Your task to perform on an android device: turn pop-ups on in chrome Image 0: 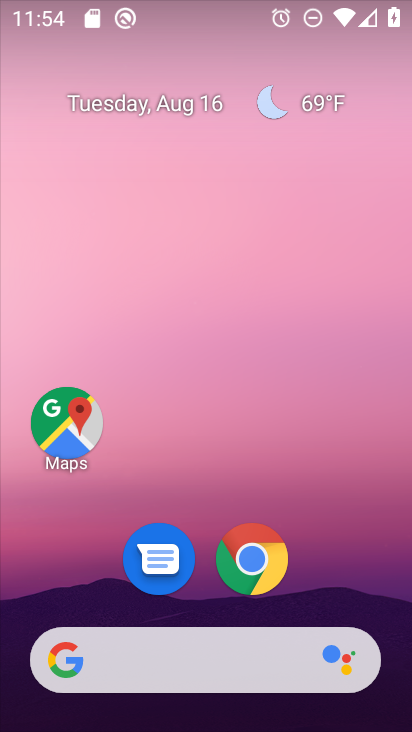
Step 0: press home button
Your task to perform on an android device: turn pop-ups on in chrome Image 1: 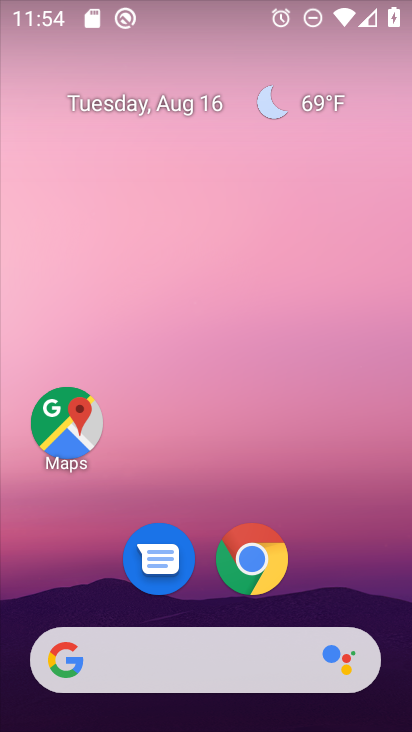
Step 1: click (254, 557)
Your task to perform on an android device: turn pop-ups on in chrome Image 2: 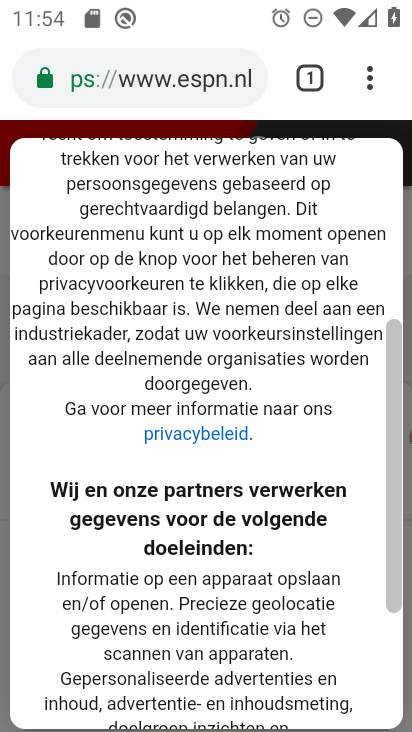
Step 2: click (388, 81)
Your task to perform on an android device: turn pop-ups on in chrome Image 3: 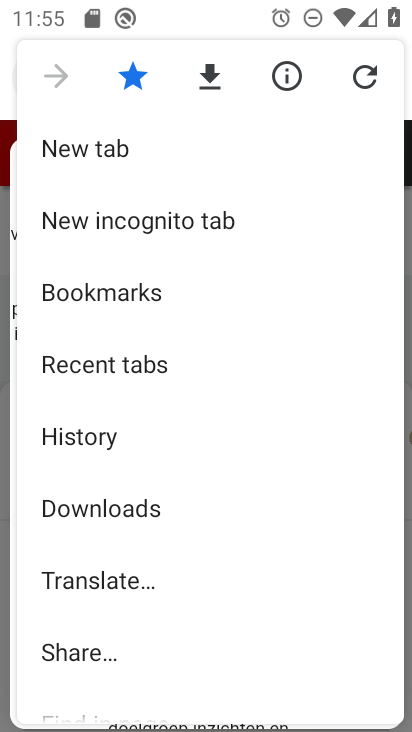
Step 3: drag from (147, 461) to (203, 382)
Your task to perform on an android device: turn pop-ups on in chrome Image 4: 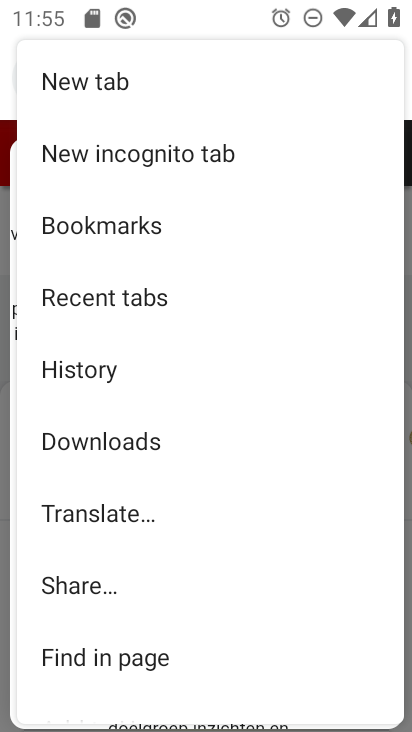
Step 4: drag from (114, 546) to (185, 456)
Your task to perform on an android device: turn pop-ups on in chrome Image 5: 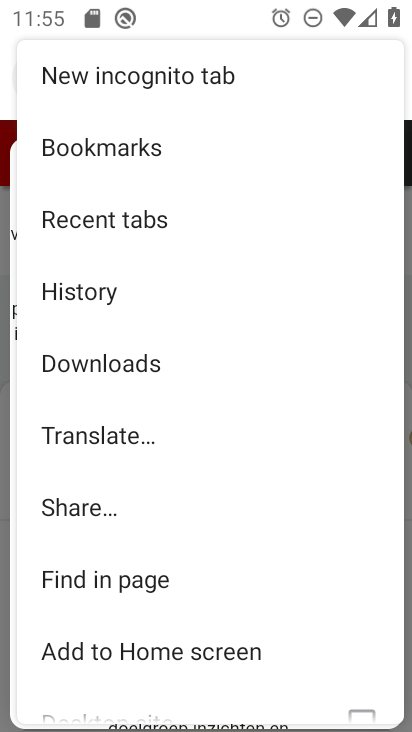
Step 5: drag from (106, 595) to (191, 467)
Your task to perform on an android device: turn pop-ups on in chrome Image 6: 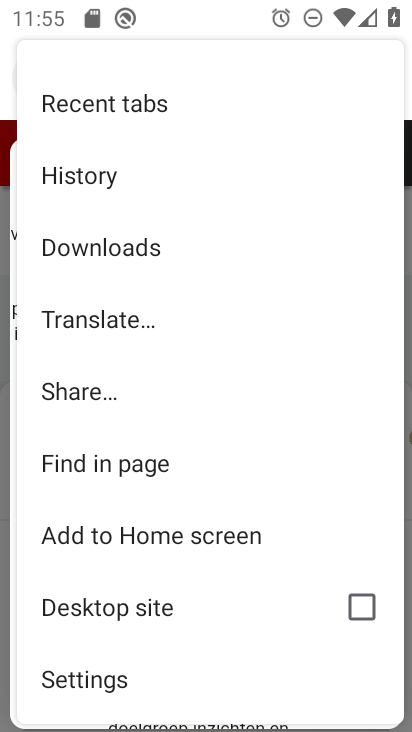
Step 6: click (106, 676)
Your task to perform on an android device: turn pop-ups on in chrome Image 7: 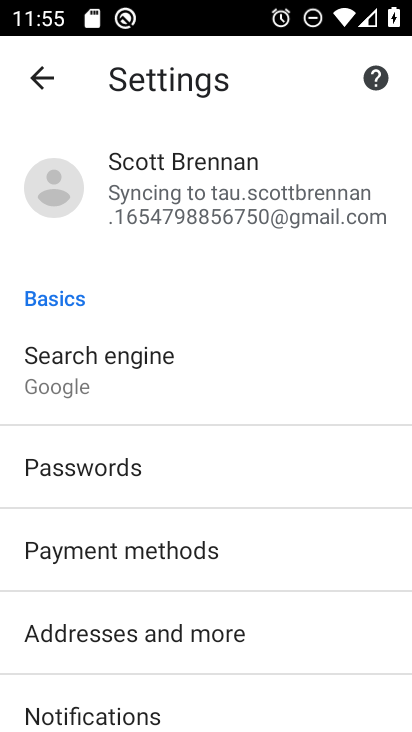
Step 7: drag from (176, 480) to (249, 380)
Your task to perform on an android device: turn pop-ups on in chrome Image 8: 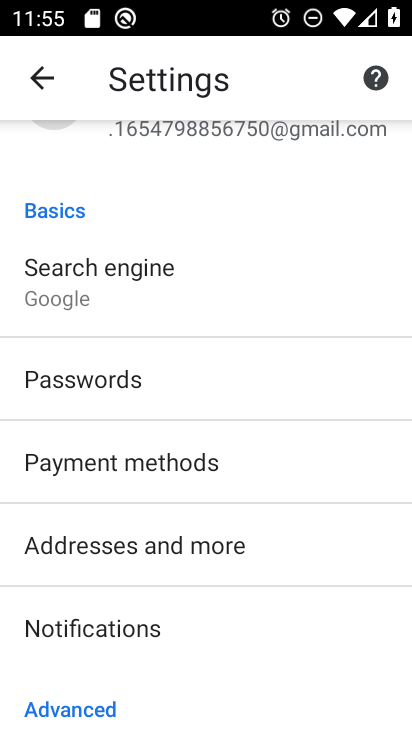
Step 8: drag from (198, 583) to (258, 491)
Your task to perform on an android device: turn pop-ups on in chrome Image 9: 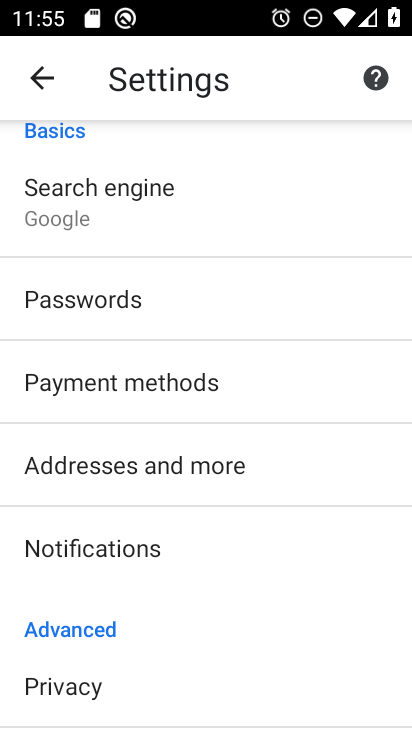
Step 9: drag from (165, 607) to (250, 492)
Your task to perform on an android device: turn pop-ups on in chrome Image 10: 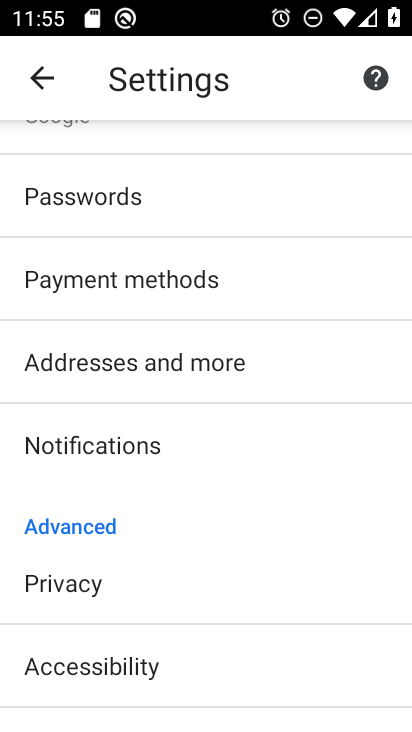
Step 10: drag from (169, 587) to (262, 471)
Your task to perform on an android device: turn pop-ups on in chrome Image 11: 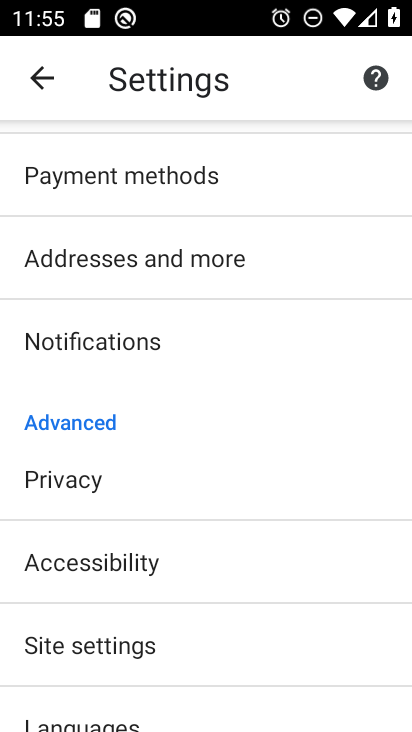
Step 11: drag from (159, 595) to (253, 486)
Your task to perform on an android device: turn pop-ups on in chrome Image 12: 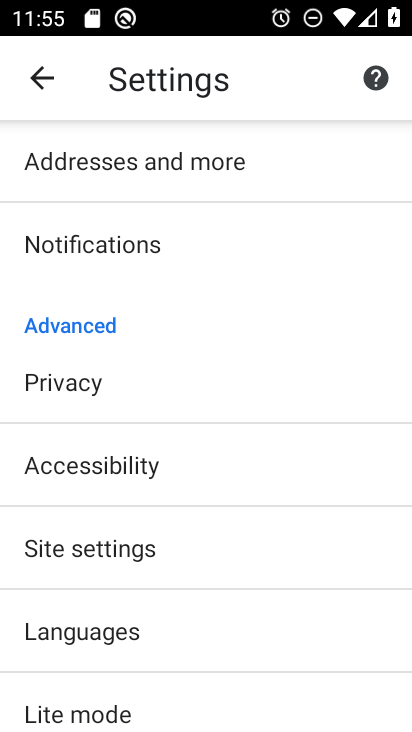
Step 12: drag from (174, 601) to (256, 503)
Your task to perform on an android device: turn pop-ups on in chrome Image 13: 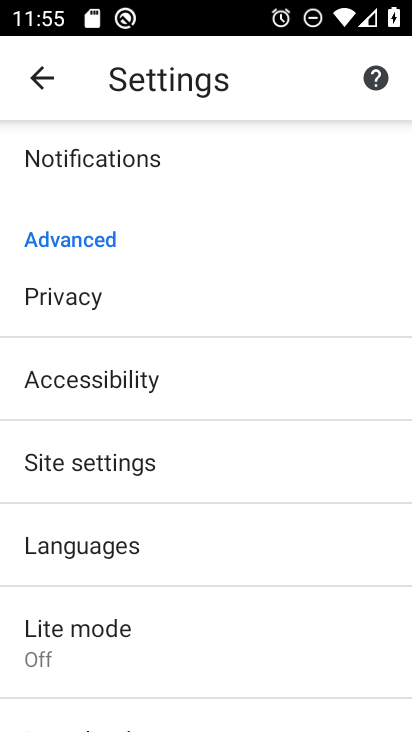
Step 13: click (135, 477)
Your task to perform on an android device: turn pop-ups on in chrome Image 14: 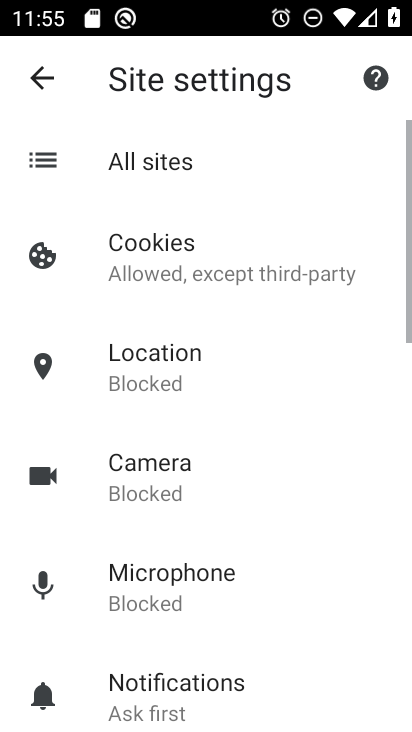
Step 14: drag from (202, 610) to (259, 515)
Your task to perform on an android device: turn pop-ups on in chrome Image 15: 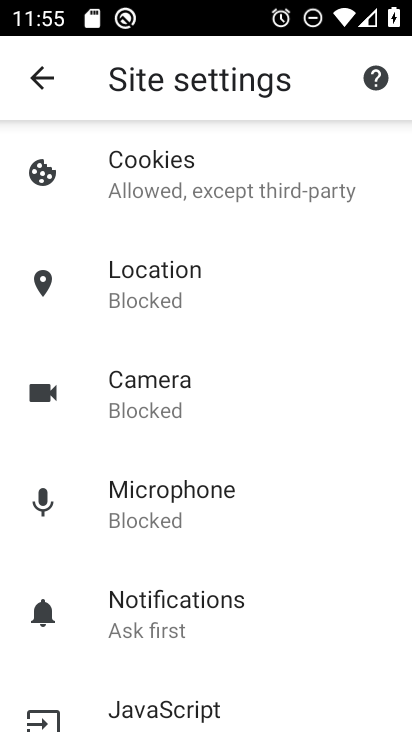
Step 15: drag from (217, 637) to (279, 544)
Your task to perform on an android device: turn pop-ups on in chrome Image 16: 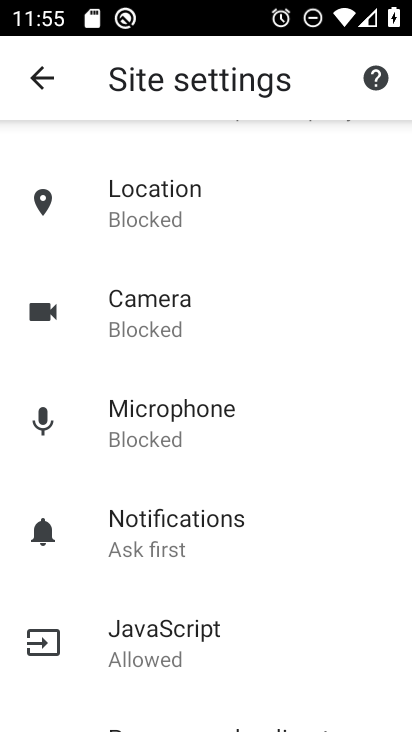
Step 16: drag from (223, 646) to (284, 559)
Your task to perform on an android device: turn pop-ups on in chrome Image 17: 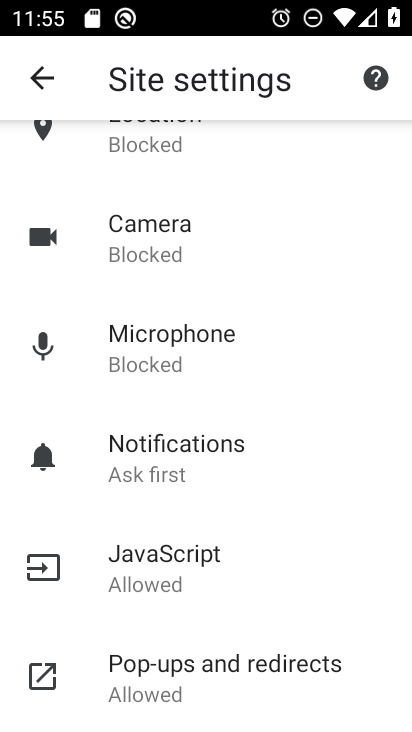
Step 17: click (229, 667)
Your task to perform on an android device: turn pop-ups on in chrome Image 18: 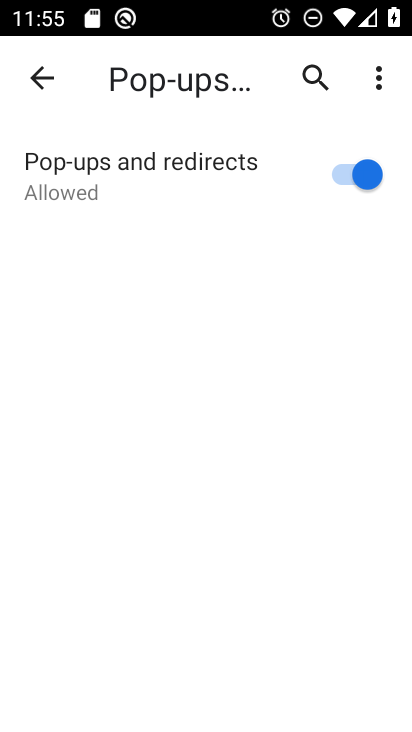
Step 18: task complete